Your task to perform on an android device: open app "Facebook" (install if not already installed), go to login, and select forgot password Image 0: 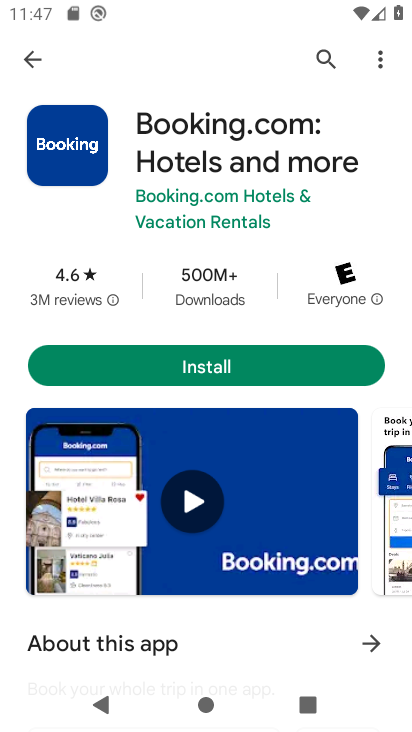
Step 0: click (322, 61)
Your task to perform on an android device: open app "Facebook" (install if not already installed), go to login, and select forgot password Image 1: 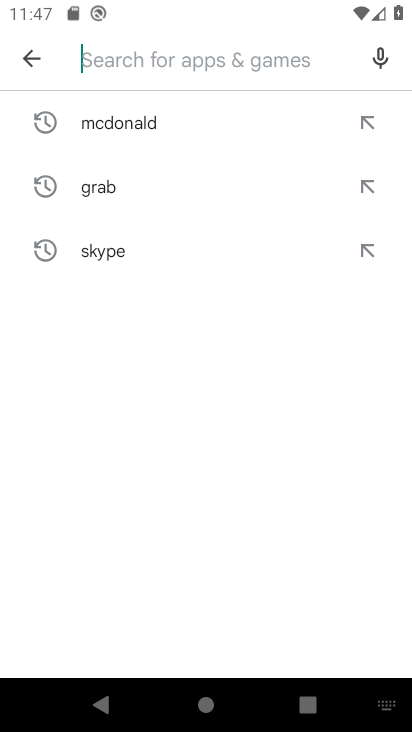
Step 1: type "facebook"
Your task to perform on an android device: open app "Facebook" (install if not already installed), go to login, and select forgot password Image 2: 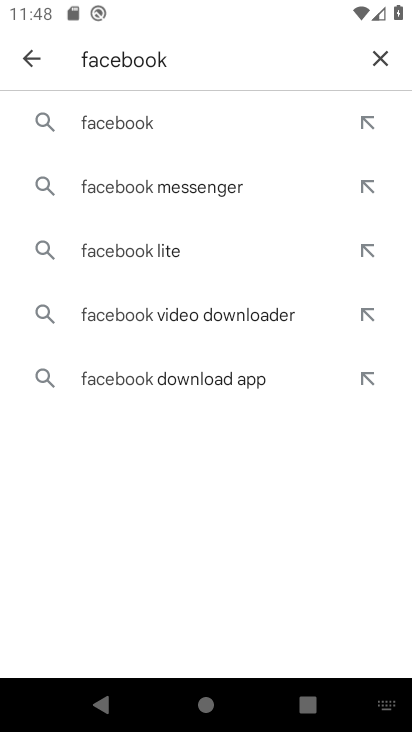
Step 2: click (124, 119)
Your task to perform on an android device: open app "Facebook" (install if not already installed), go to login, and select forgot password Image 3: 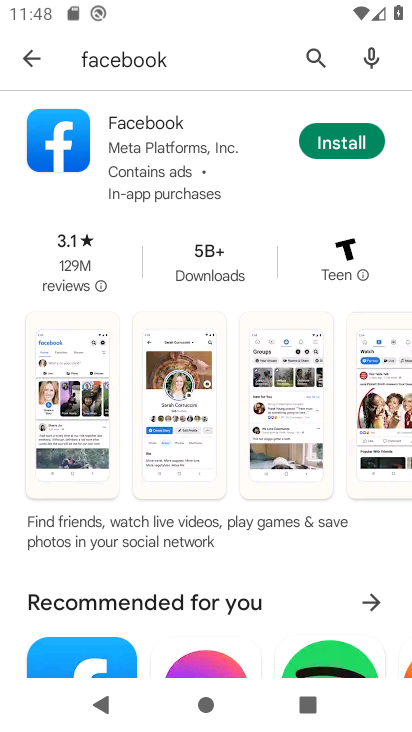
Step 3: click (340, 153)
Your task to perform on an android device: open app "Facebook" (install if not already installed), go to login, and select forgot password Image 4: 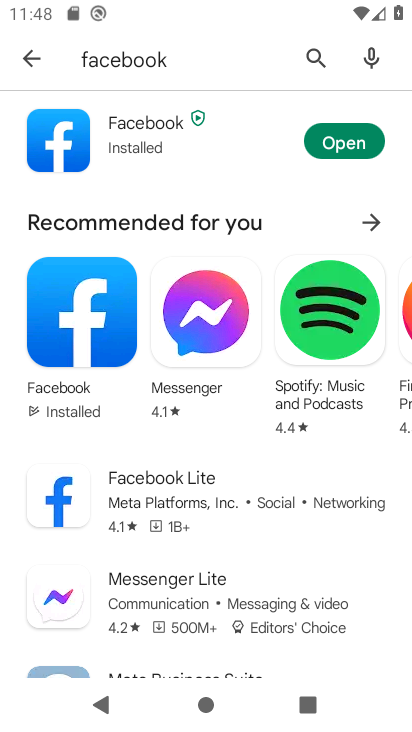
Step 4: click (335, 149)
Your task to perform on an android device: open app "Facebook" (install if not already installed), go to login, and select forgot password Image 5: 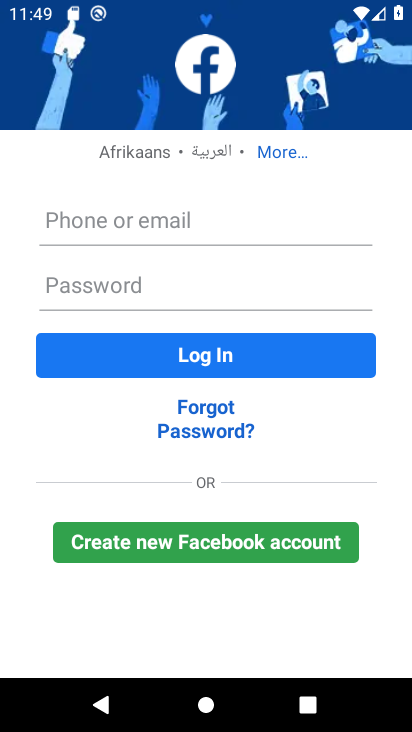
Step 5: click (204, 431)
Your task to perform on an android device: open app "Facebook" (install if not already installed), go to login, and select forgot password Image 6: 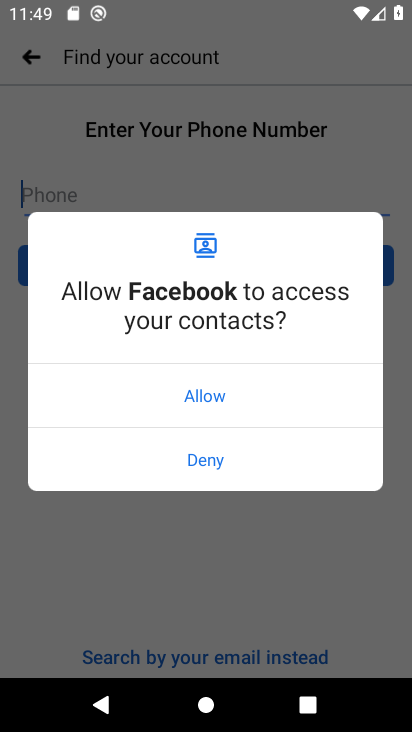
Step 6: click (241, 393)
Your task to perform on an android device: open app "Facebook" (install if not already installed), go to login, and select forgot password Image 7: 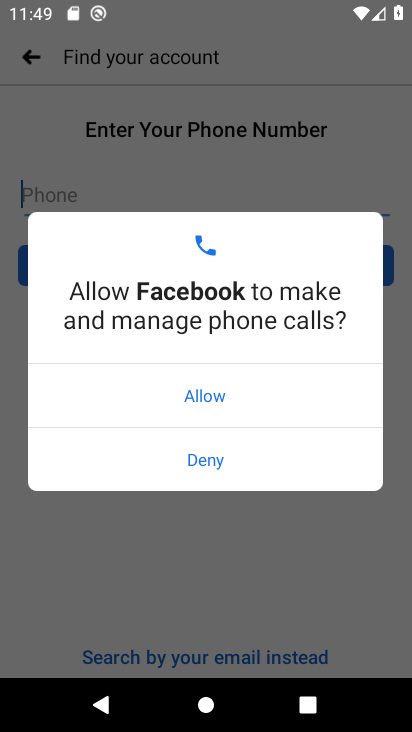
Step 7: task complete